Your task to perform on an android device: Go to location settings Image 0: 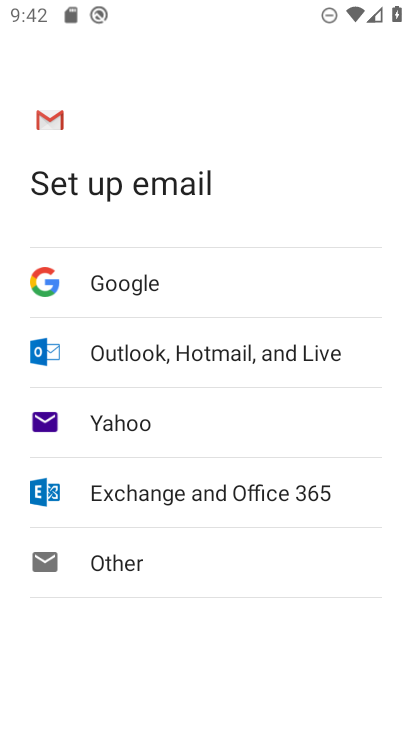
Step 0: press home button
Your task to perform on an android device: Go to location settings Image 1: 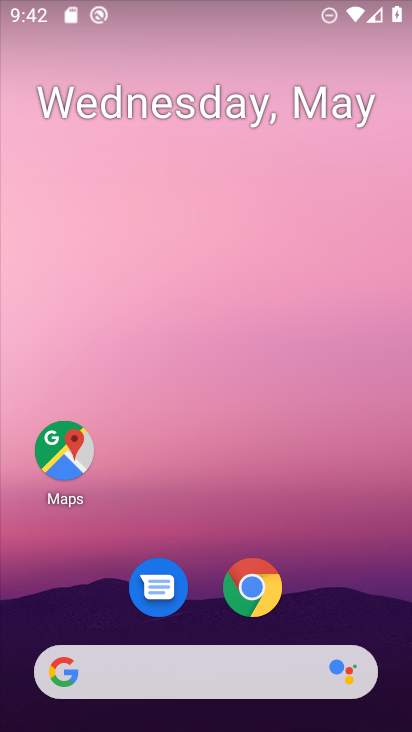
Step 1: drag from (204, 722) to (165, 217)
Your task to perform on an android device: Go to location settings Image 2: 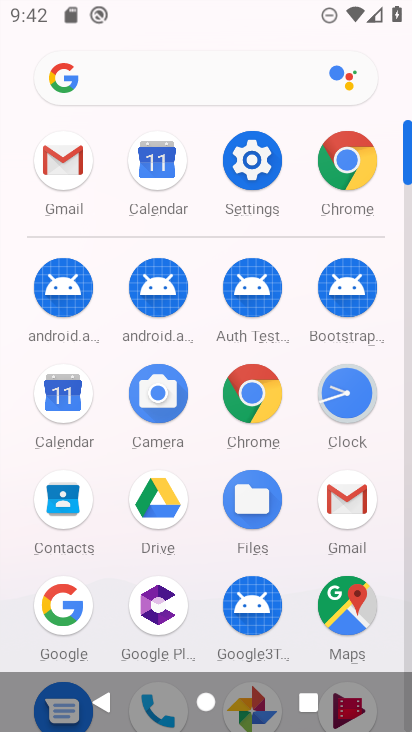
Step 2: click (250, 152)
Your task to perform on an android device: Go to location settings Image 3: 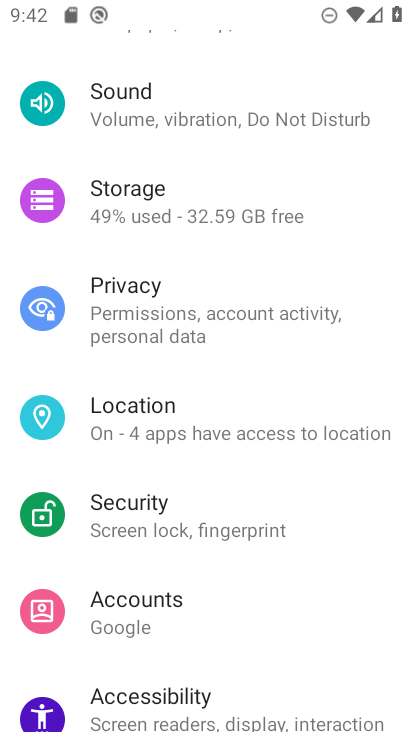
Step 3: click (113, 425)
Your task to perform on an android device: Go to location settings Image 4: 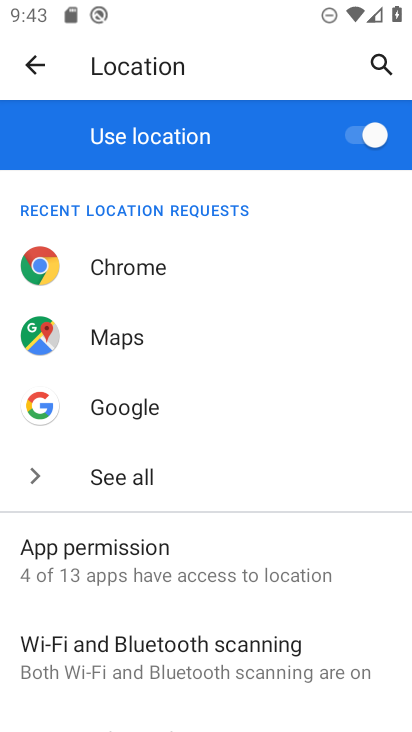
Step 4: task complete